Your task to perform on an android device: turn off translation in the chrome app Image 0: 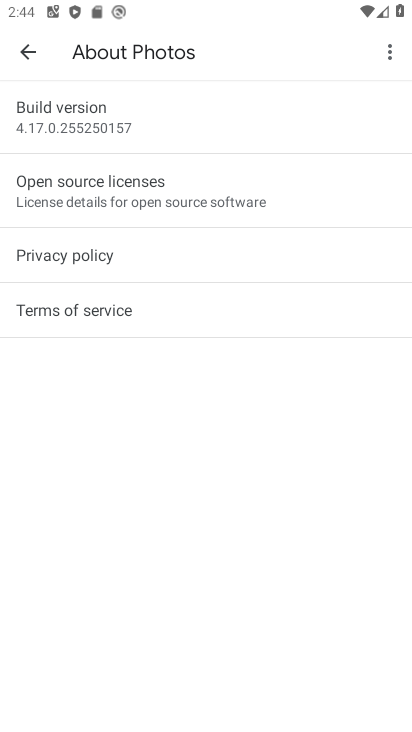
Step 0: click (38, 53)
Your task to perform on an android device: turn off translation in the chrome app Image 1: 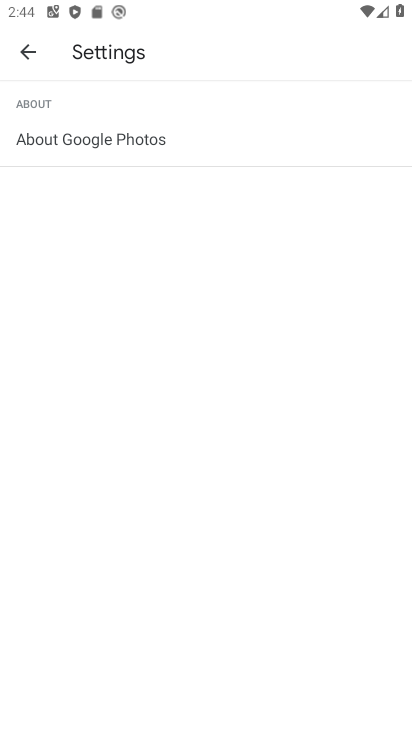
Step 1: click (24, 53)
Your task to perform on an android device: turn off translation in the chrome app Image 2: 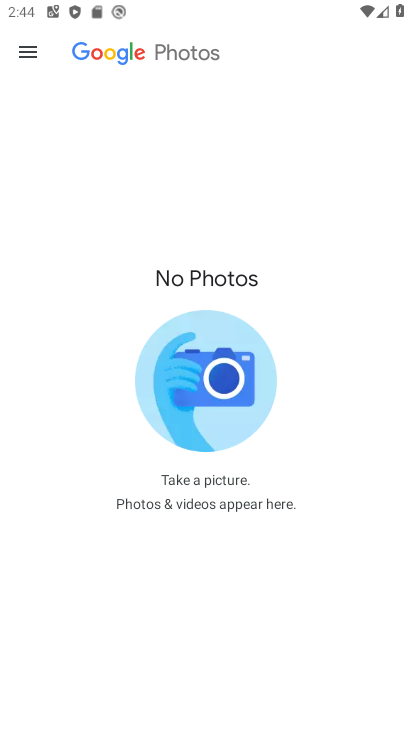
Step 2: press home button
Your task to perform on an android device: turn off translation in the chrome app Image 3: 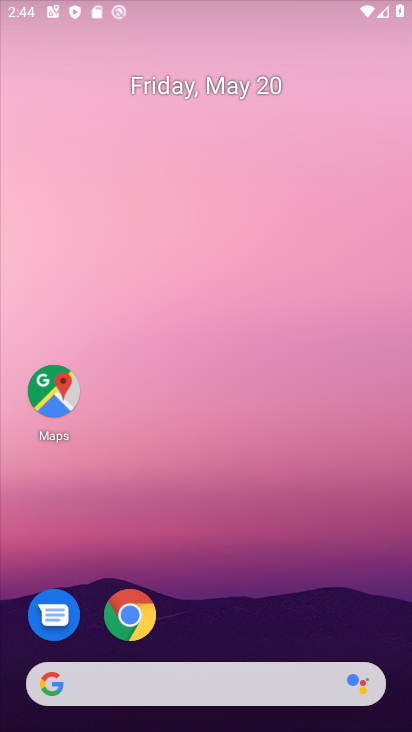
Step 3: drag from (305, 624) to (280, 238)
Your task to perform on an android device: turn off translation in the chrome app Image 4: 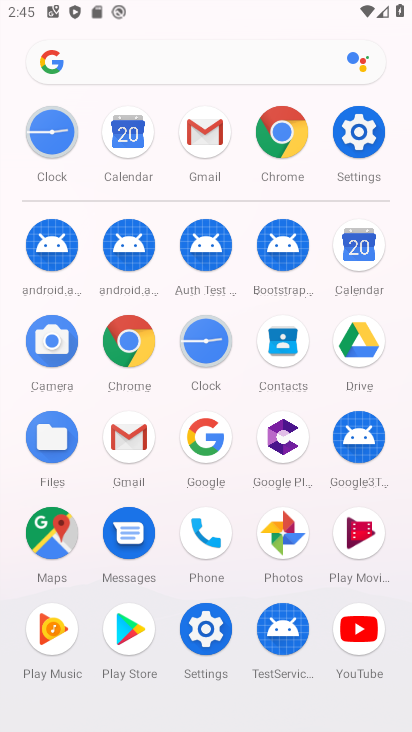
Step 4: click (136, 341)
Your task to perform on an android device: turn off translation in the chrome app Image 5: 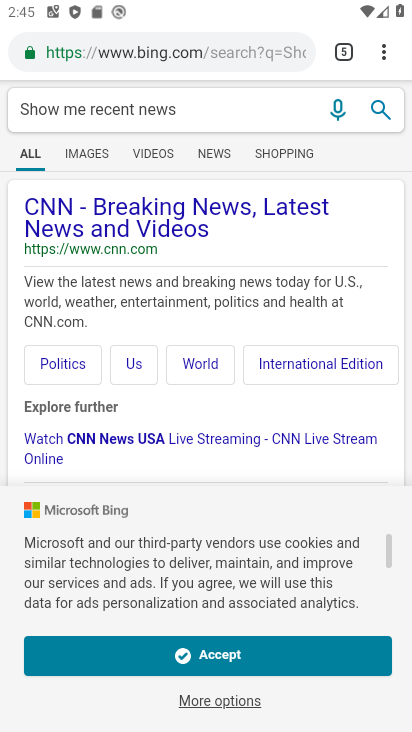
Step 5: click (379, 50)
Your task to perform on an android device: turn off translation in the chrome app Image 6: 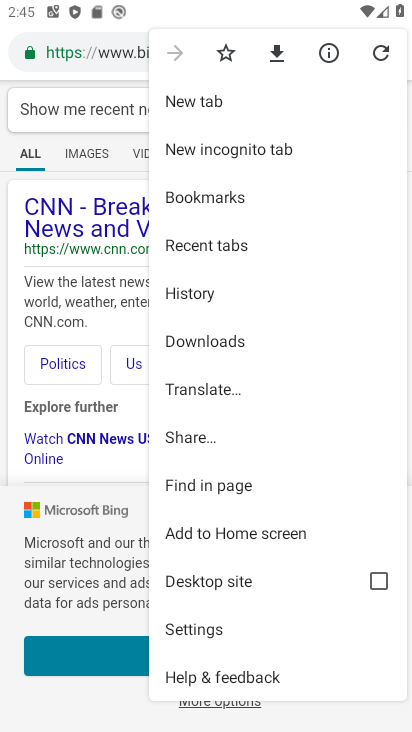
Step 6: click (227, 628)
Your task to perform on an android device: turn off translation in the chrome app Image 7: 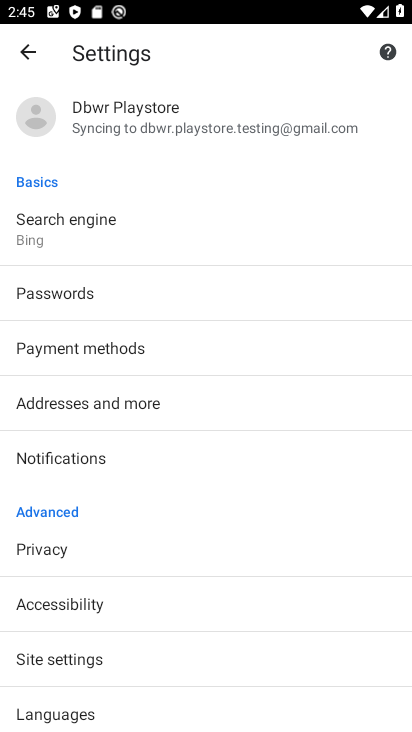
Step 7: drag from (113, 627) to (137, 470)
Your task to perform on an android device: turn off translation in the chrome app Image 8: 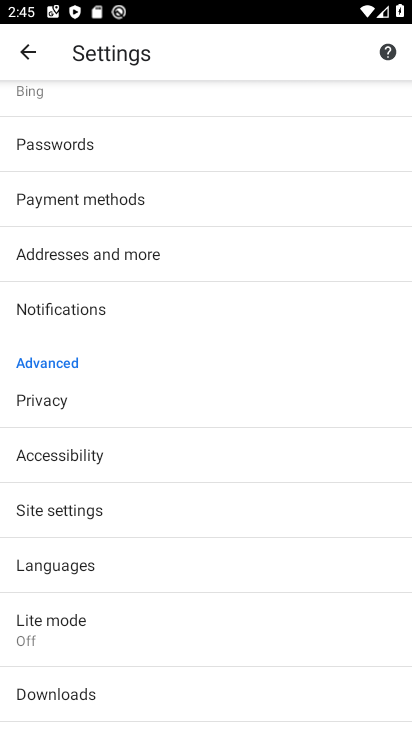
Step 8: click (91, 576)
Your task to perform on an android device: turn off translation in the chrome app Image 9: 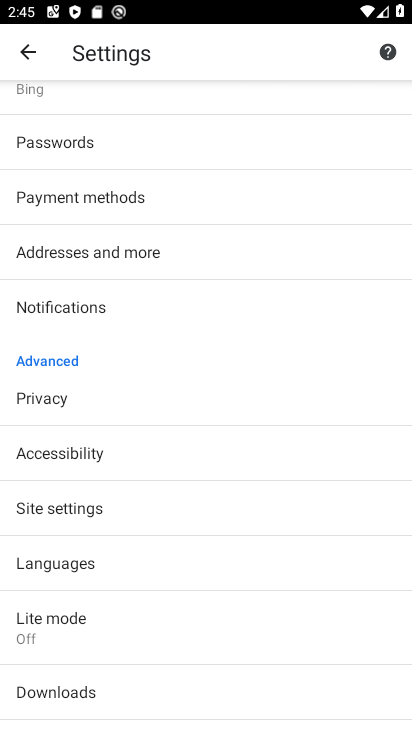
Step 9: click (120, 554)
Your task to perform on an android device: turn off translation in the chrome app Image 10: 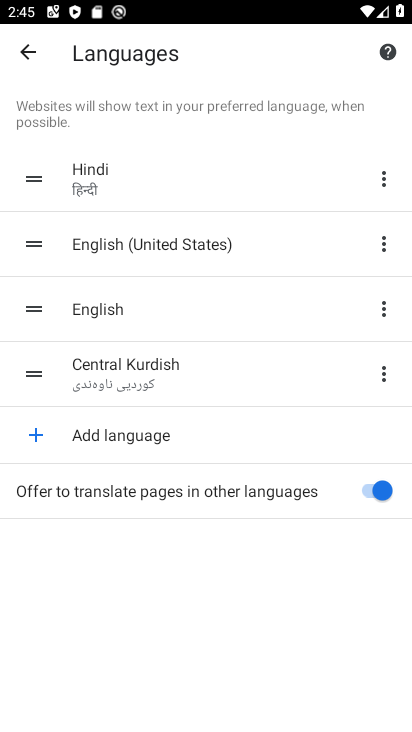
Step 10: click (361, 489)
Your task to perform on an android device: turn off translation in the chrome app Image 11: 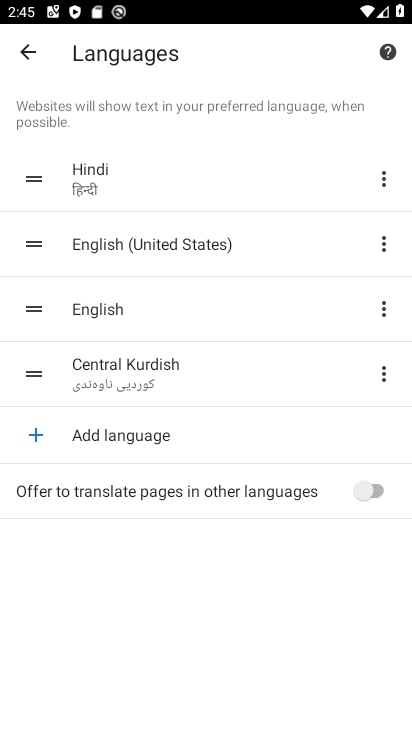
Step 11: task complete